Your task to perform on an android device: turn off wifi Image 0: 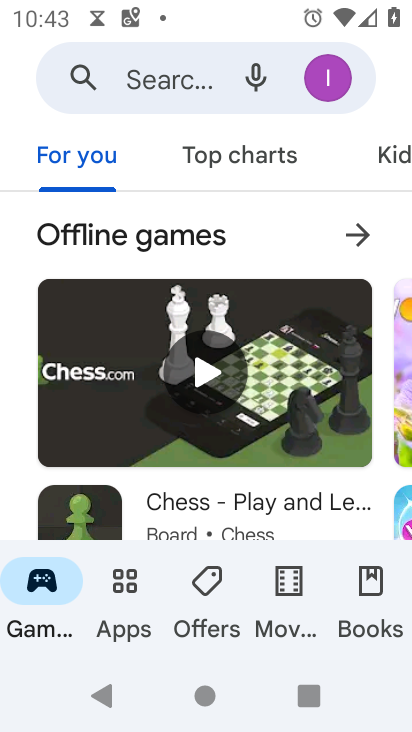
Step 0: press back button
Your task to perform on an android device: turn off wifi Image 1: 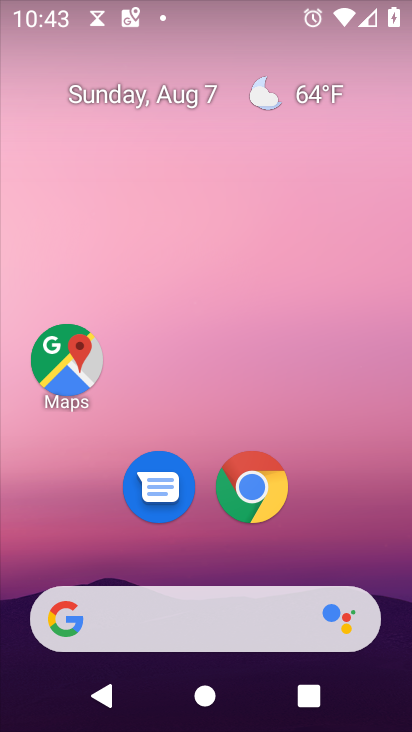
Step 1: drag from (404, 617) to (392, 174)
Your task to perform on an android device: turn off wifi Image 2: 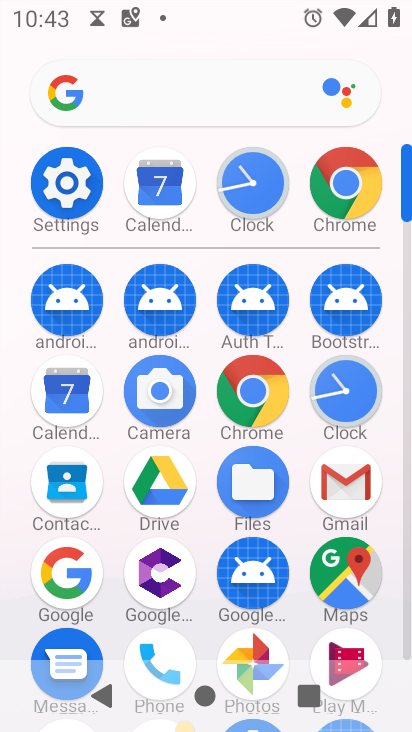
Step 2: click (72, 183)
Your task to perform on an android device: turn off wifi Image 3: 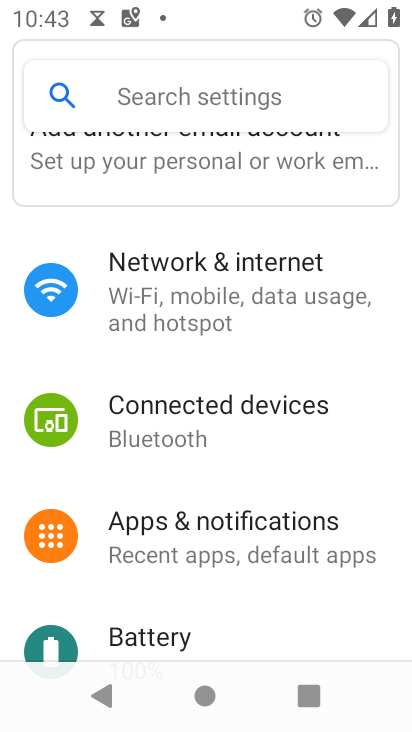
Step 3: drag from (374, 613) to (381, 257)
Your task to perform on an android device: turn off wifi Image 4: 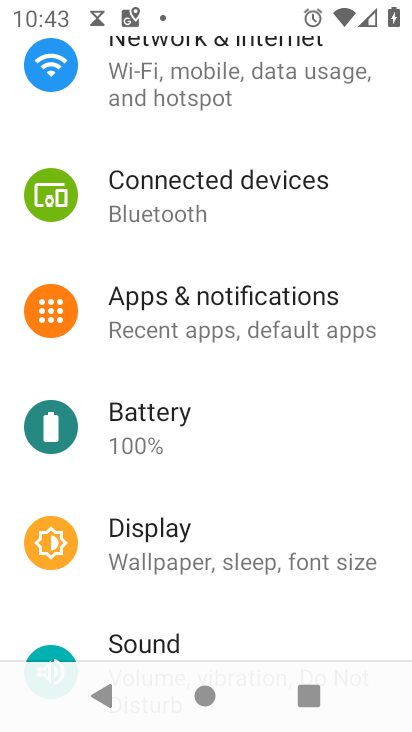
Step 4: drag from (298, 113) to (333, 566)
Your task to perform on an android device: turn off wifi Image 5: 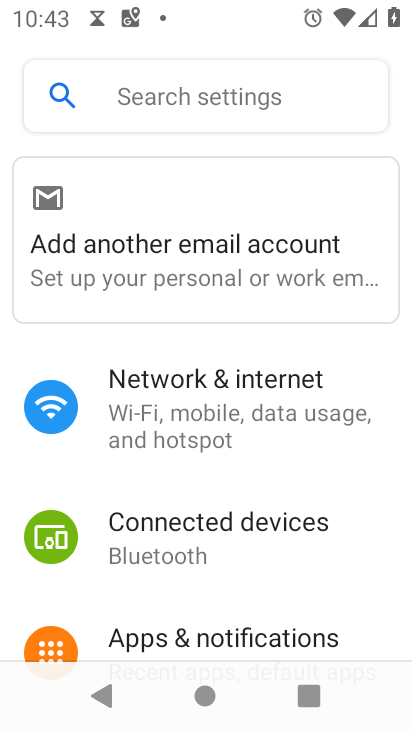
Step 5: click (149, 389)
Your task to perform on an android device: turn off wifi Image 6: 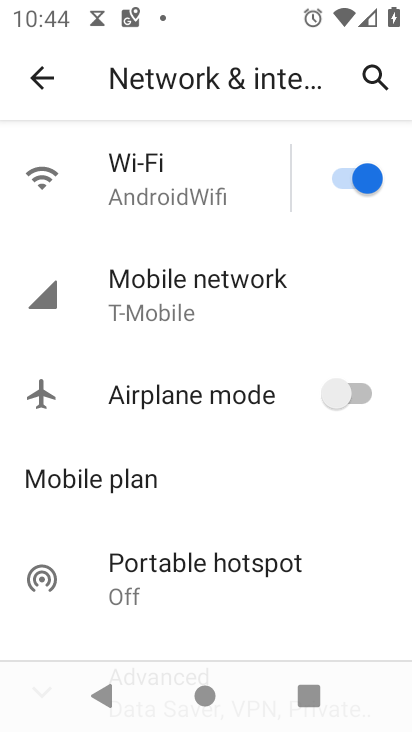
Step 6: click (330, 176)
Your task to perform on an android device: turn off wifi Image 7: 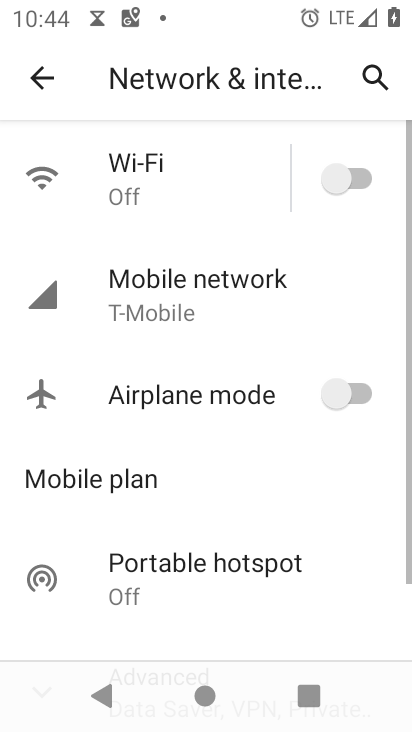
Step 7: task complete